Your task to perform on an android device: Open Maps and search for coffee Image 0: 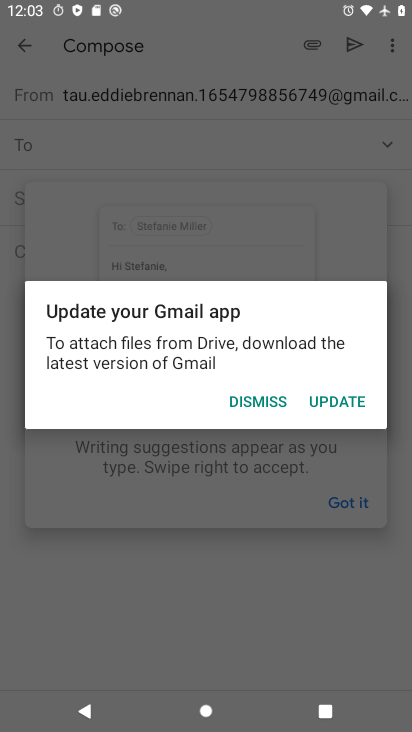
Step 0: press home button
Your task to perform on an android device: Open Maps and search for coffee Image 1: 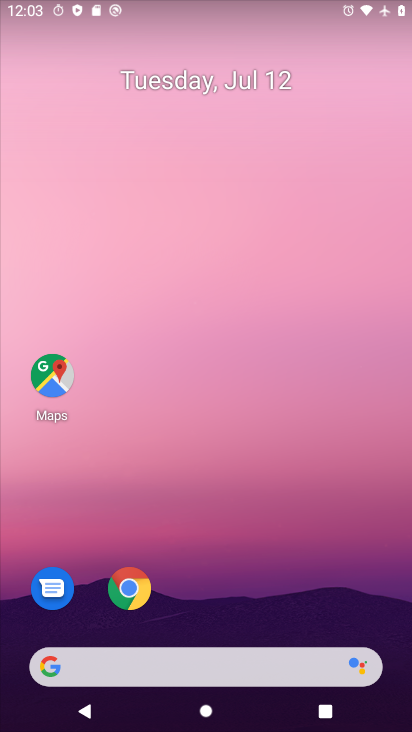
Step 1: click (49, 380)
Your task to perform on an android device: Open Maps and search for coffee Image 2: 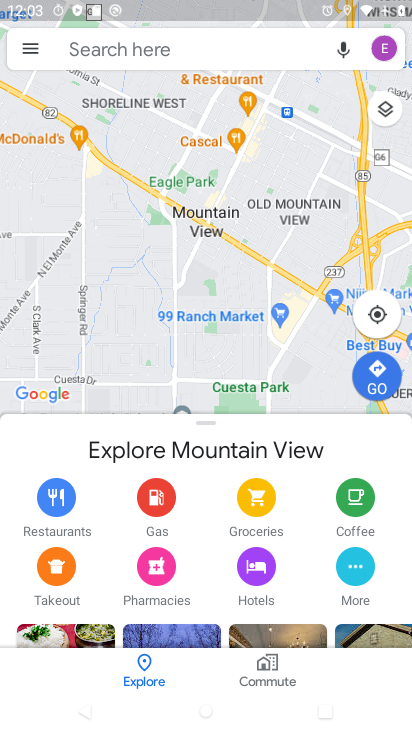
Step 2: click (182, 53)
Your task to perform on an android device: Open Maps and search for coffee Image 3: 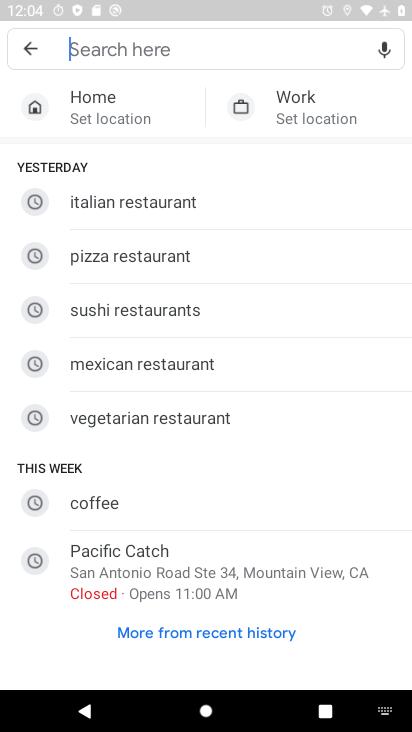
Step 3: type "coffee"
Your task to perform on an android device: Open Maps and search for coffee Image 4: 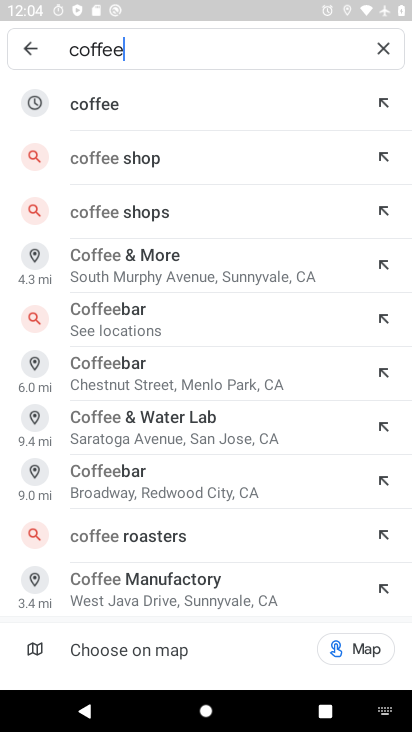
Step 4: click (100, 100)
Your task to perform on an android device: Open Maps and search for coffee Image 5: 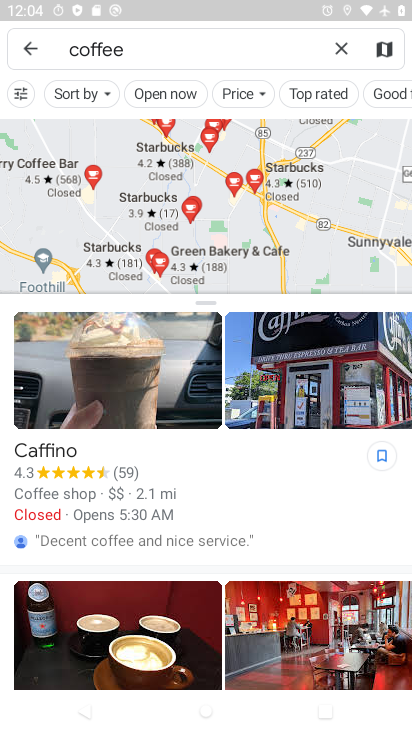
Step 5: task complete